Your task to perform on an android device: choose inbox layout in the gmail app Image 0: 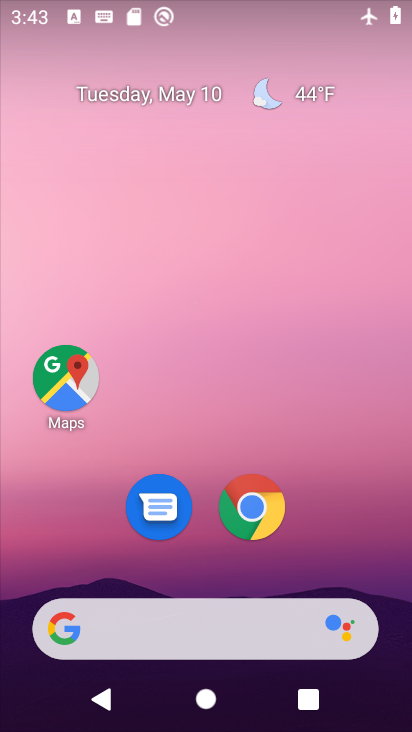
Step 0: drag from (200, 533) to (256, 321)
Your task to perform on an android device: choose inbox layout in the gmail app Image 1: 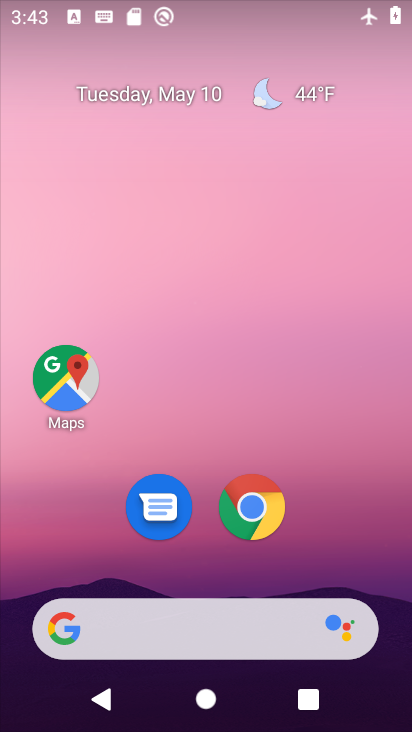
Step 1: drag from (207, 568) to (237, 194)
Your task to perform on an android device: choose inbox layout in the gmail app Image 2: 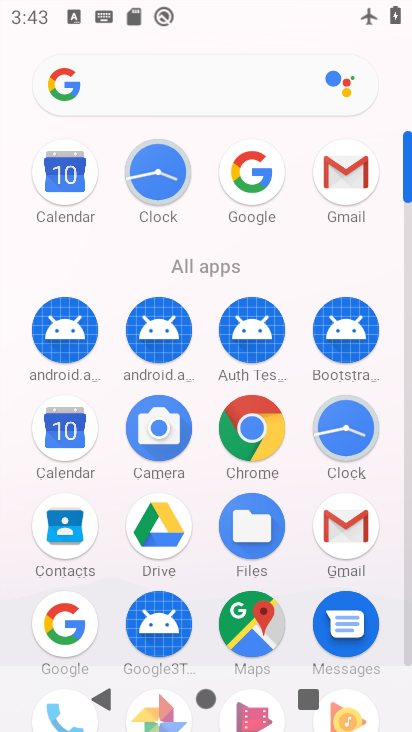
Step 2: click (333, 171)
Your task to perform on an android device: choose inbox layout in the gmail app Image 3: 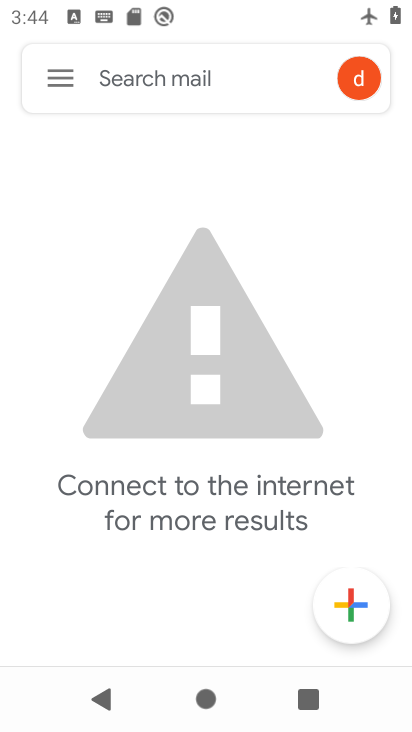
Step 3: click (64, 80)
Your task to perform on an android device: choose inbox layout in the gmail app Image 4: 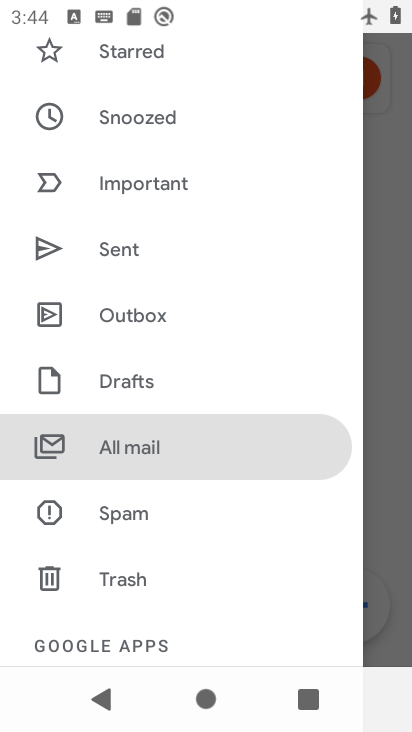
Step 4: drag from (134, 550) to (174, 105)
Your task to perform on an android device: choose inbox layout in the gmail app Image 5: 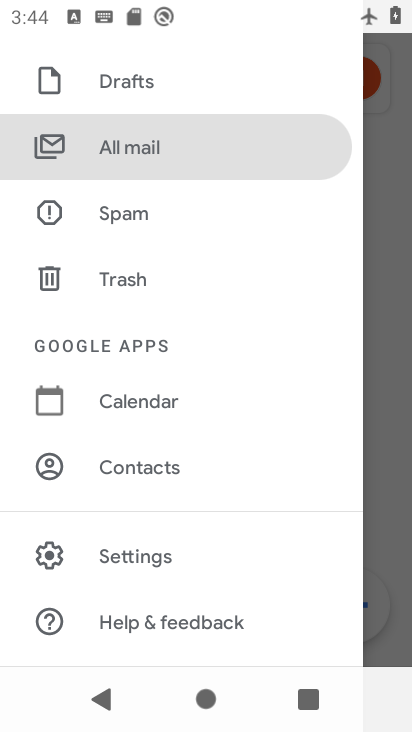
Step 5: click (148, 555)
Your task to perform on an android device: choose inbox layout in the gmail app Image 6: 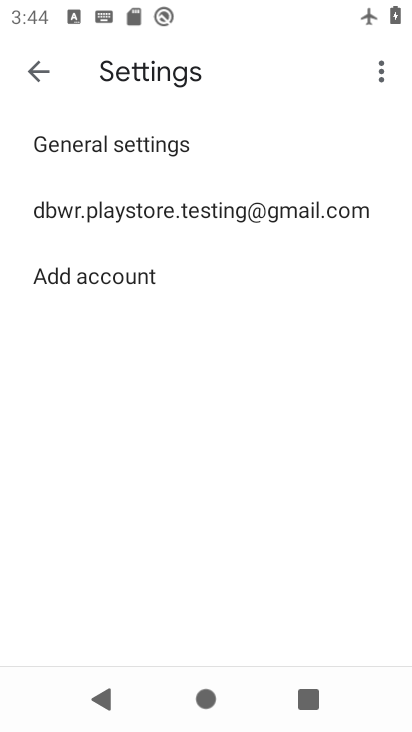
Step 6: click (177, 219)
Your task to perform on an android device: choose inbox layout in the gmail app Image 7: 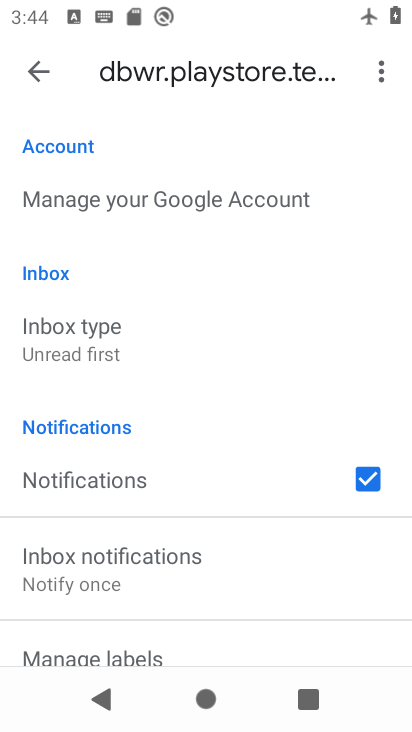
Step 7: click (119, 333)
Your task to perform on an android device: choose inbox layout in the gmail app Image 8: 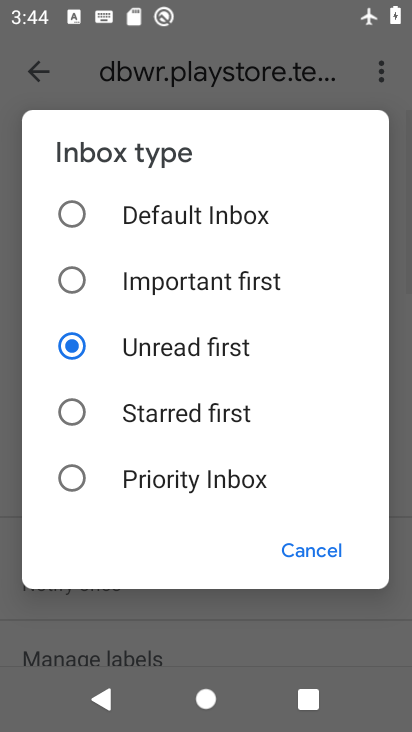
Step 8: click (165, 224)
Your task to perform on an android device: choose inbox layout in the gmail app Image 9: 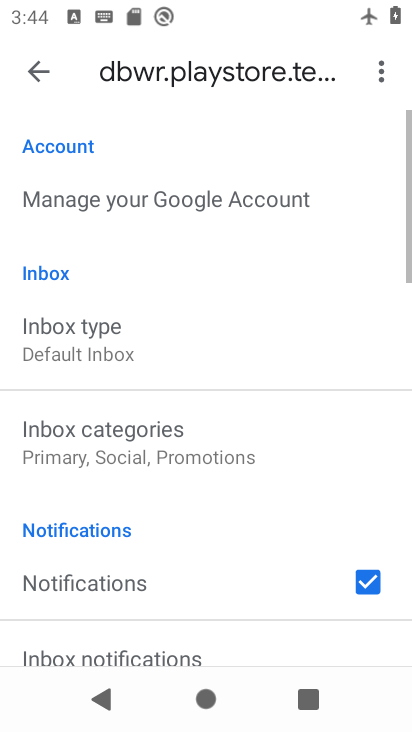
Step 9: task complete